Your task to perform on an android device: find photos in the google photos app Image 0: 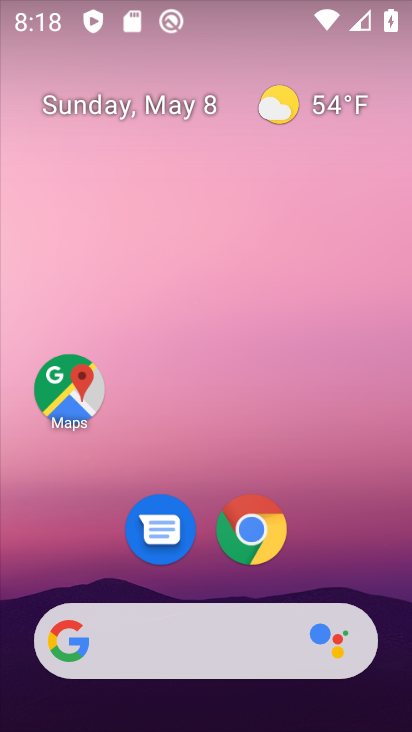
Step 0: drag from (379, 574) to (377, 126)
Your task to perform on an android device: find photos in the google photos app Image 1: 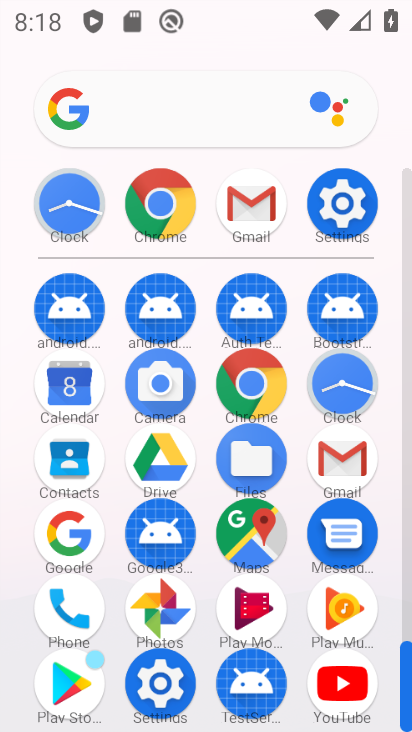
Step 1: click (156, 629)
Your task to perform on an android device: find photos in the google photos app Image 2: 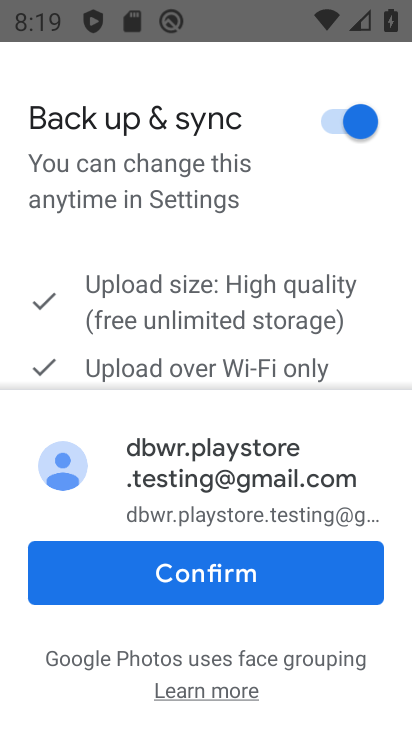
Step 2: click (213, 583)
Your task to perform on an android device: find photos in the google photos app Image 3: 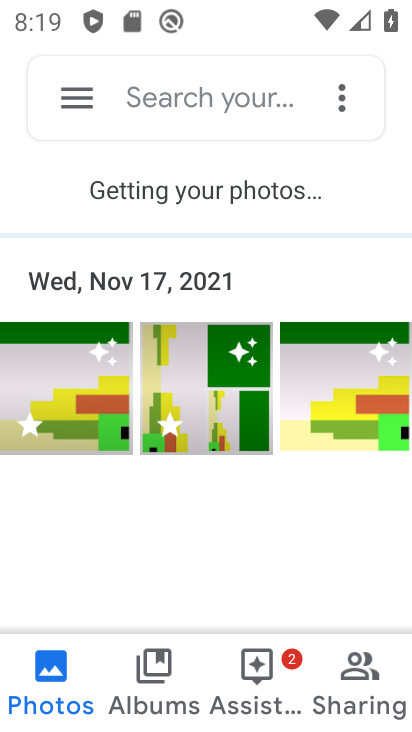
Step 3: task complete